Your task to perform on an android device: What is the news today? Image 0: 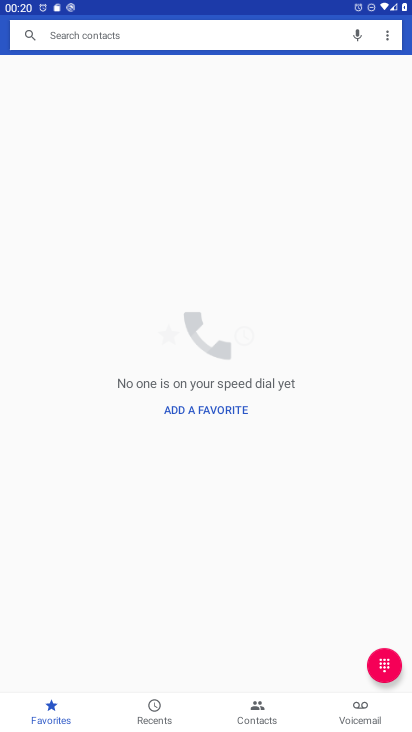
Step 0: press home button
Your task to perform on an android device: What is the news today? Image 1: 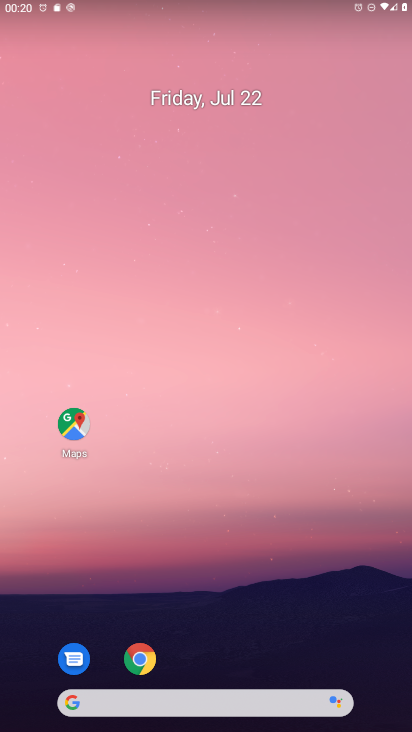
Step 1: drag from (206, 705) to (257, 85)
Your task to perform on an android device: What is the news today? Image 2: 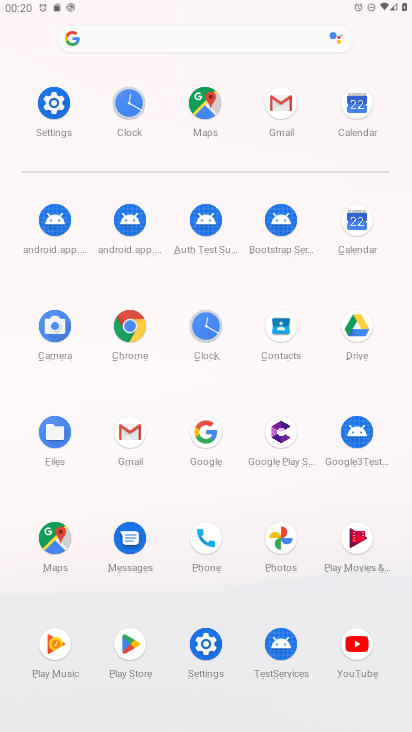
Step 2: click (204, 428)
Your task to perform on an android device: What is the news today? Image 3: 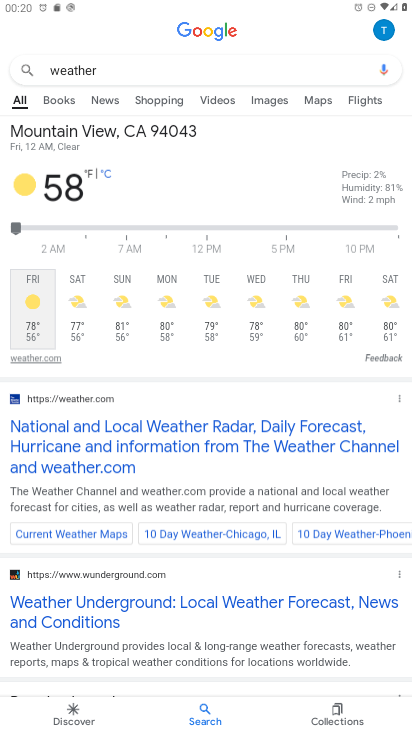
Step 3: click (294, 62)
Your task to perform on an android device: What is the news today? Image 4: 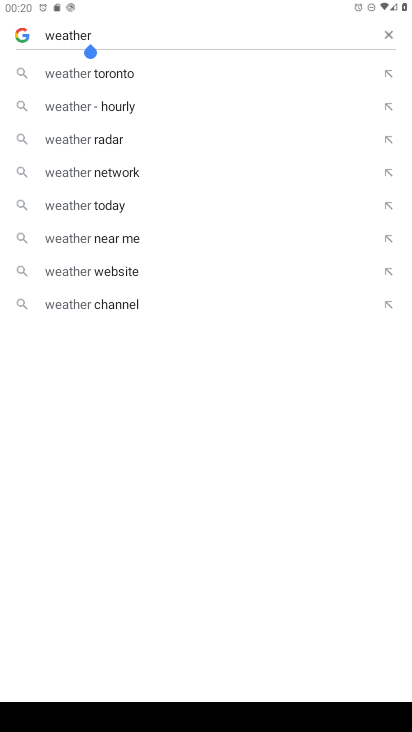
Step 4: click (385, 33)
Your task to perform on an android device: What is the news today? Image 5: 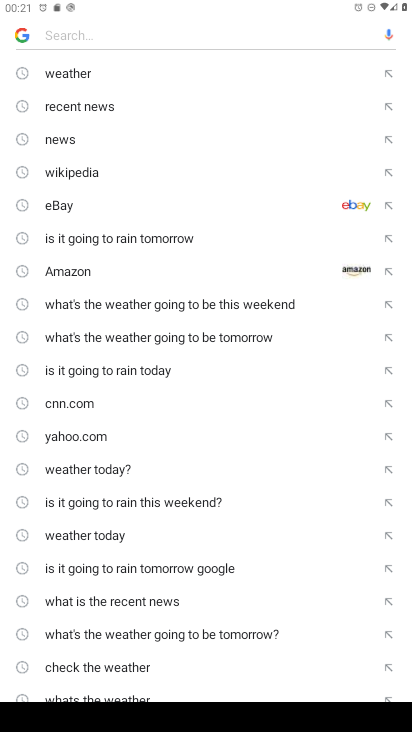
Step 5: type "news today"
Your task to perform on an android device: What is the news today? Image 6: 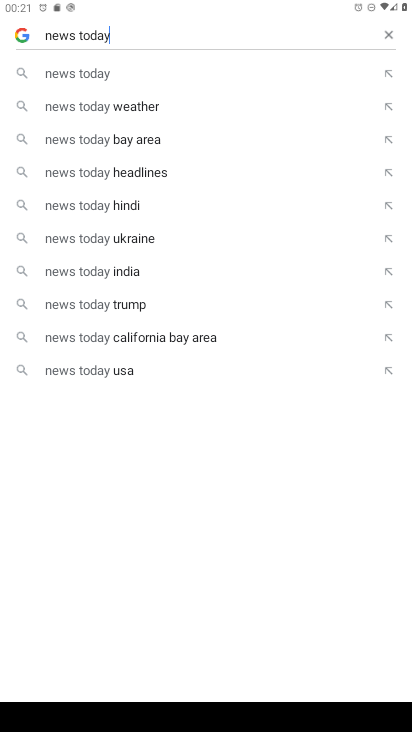
Step 6: click (92, 75)
Your task to perform on an android device: What is the news today? Image 7: 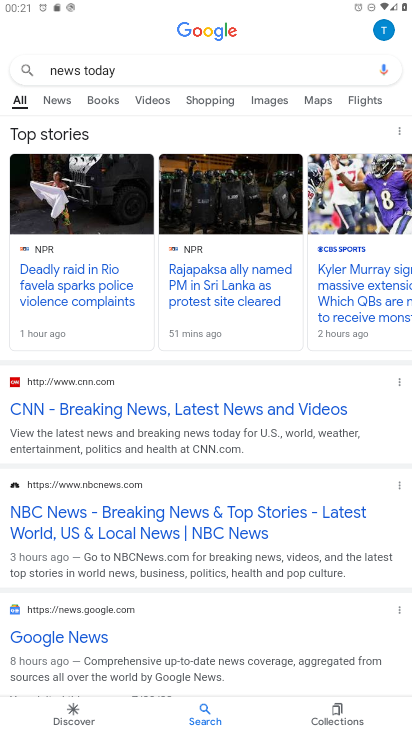
Step 7: click (70, 301)
Your task to perform on an android device: What is the news today? Image 8: 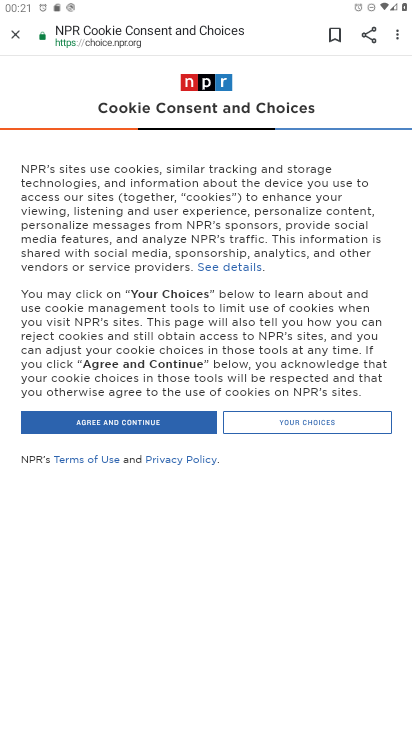
Step 8: task complete